Your task to perform on an android device: Go to calendar. Show me events next week Image 0: 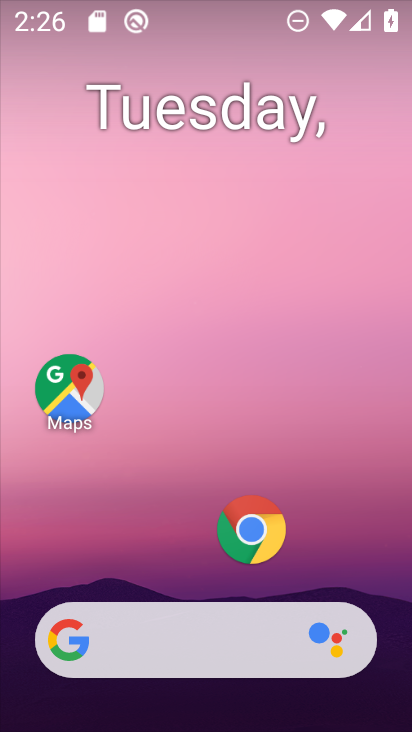
Step 0: drag from (227, 668) to (260, 0)
Your task to perform on an android device: Go to calendar. Show me events next week Image 1: 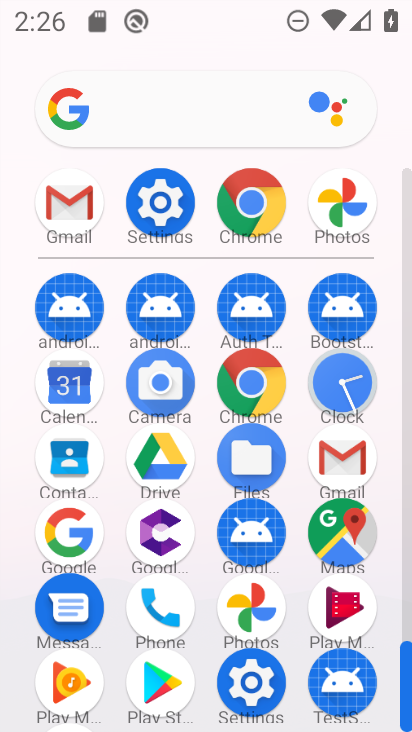
Step 1: click (72, 388)
Your task to perform on an android device: Go to calendar. Show me events next week Image 2: 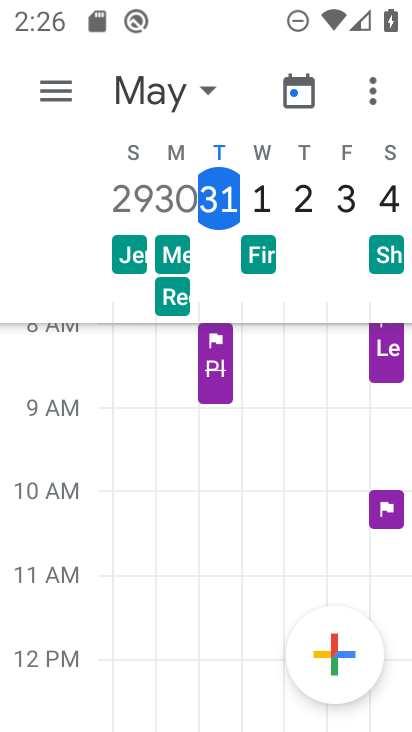
Step 2: click (48, 90)
Your task to perform on an android device: Go to calendar. Show me events next week Image 3: 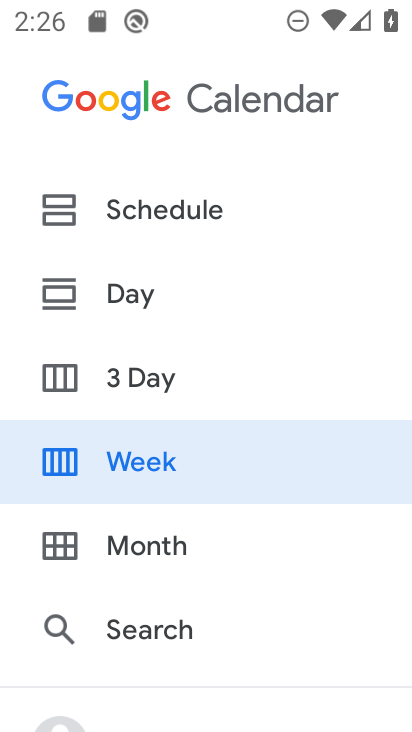
Step 3: click (158, 460)
Your task to perform on an android device: Go to calendar. Show me events next week Image 4: 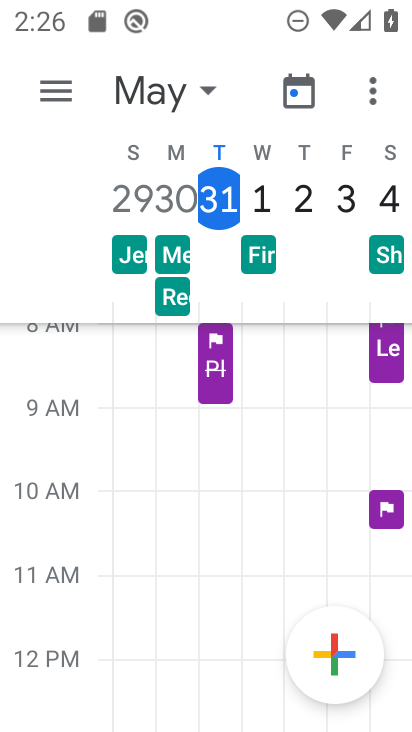
Step 4: task complete